Your task to perform on an android device: Go to Google maps Image 0: 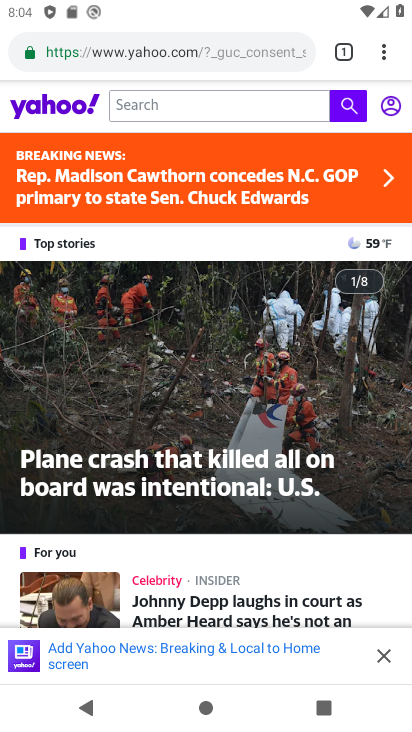
Step 0: press home button
Your task to perform on an android device: Go to Google maps Image 1: 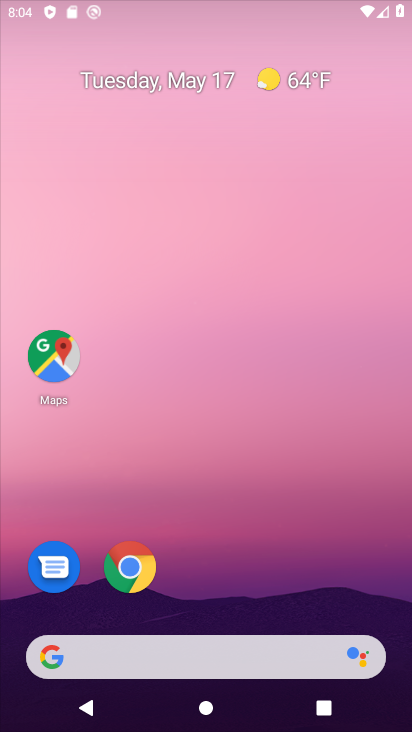
Step 1: drag from (352, 590) to (244, 78)
Your task to perform on an android device: Go to Google maps Image 2: 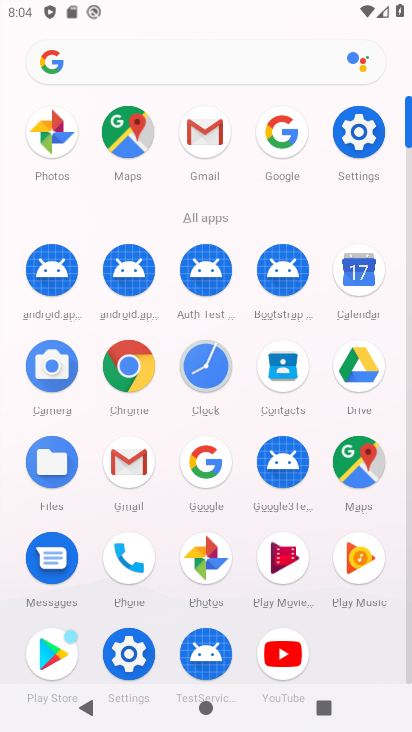
Step 2: click (358, 475)
Your task to perform on an android device: Go to Google maps Image 3: 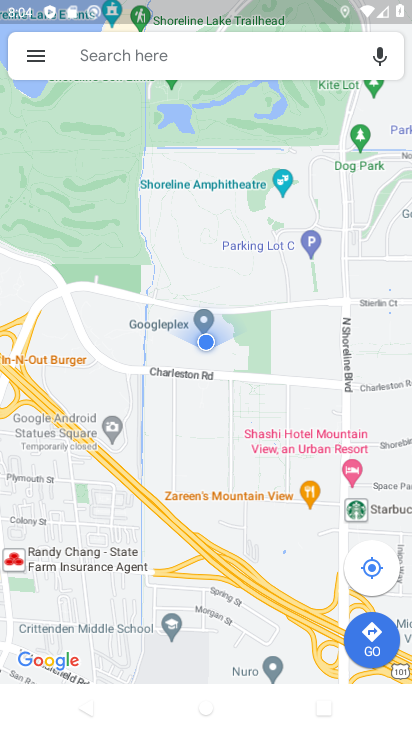
Step 3: task complete